Your task to perform on an android device: check battery use Image 0: 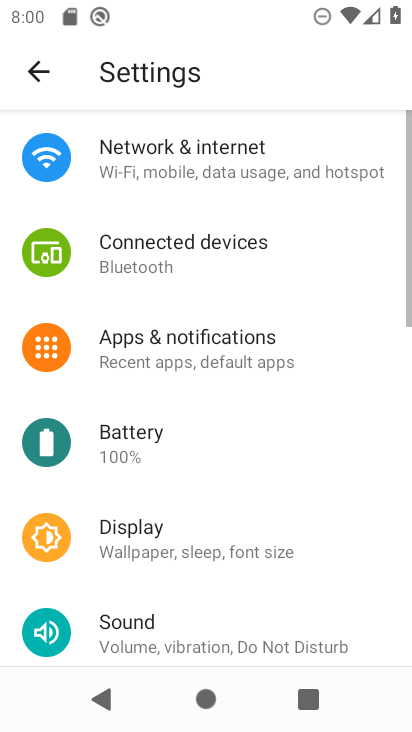
Step 0: press home button
Your task to perform on an android device: check battery use Image 1: 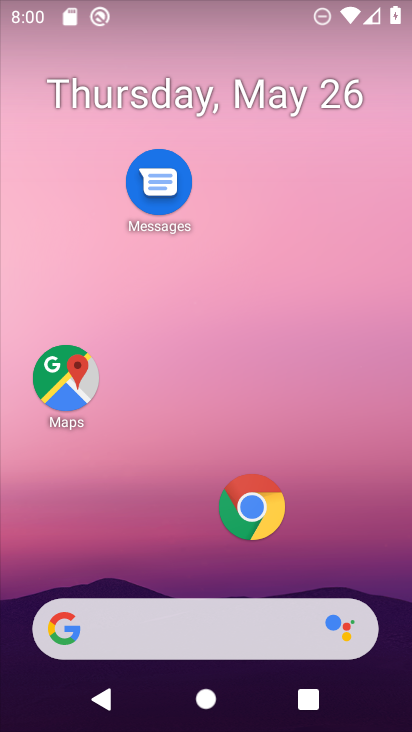
Step 1: drag from (190, 584) to (293, 56)
Your task to perform on an android device: check battery use Image 2: 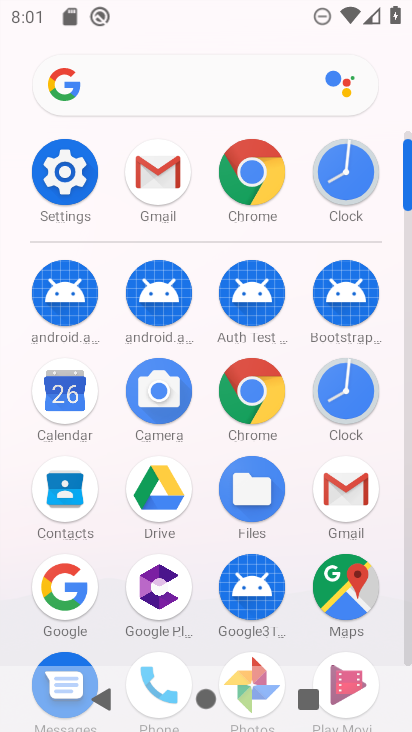
Step 2: click (74, 172)
Your task to perform on an android device: check battery use Image 3: 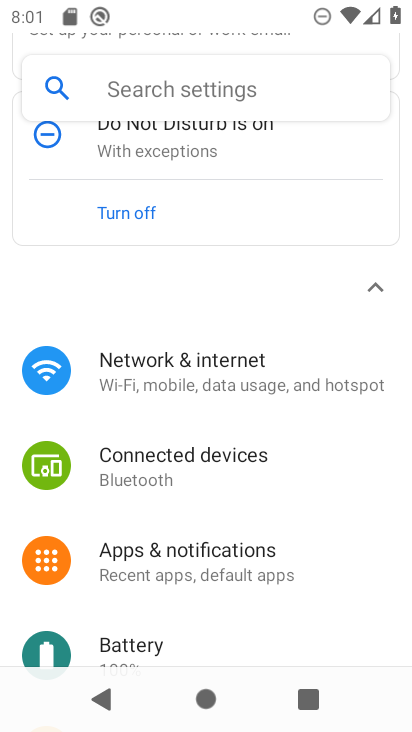
Step 3: click (153, 648)
Your task to perform on an android device: check battery use Image 4: 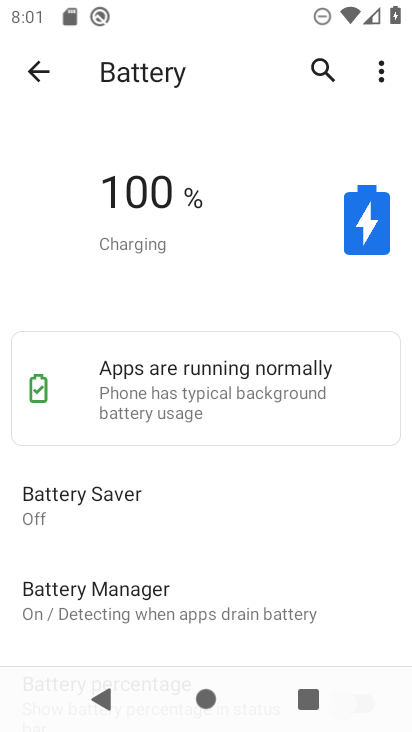
Step 4: task complete